Your task to perform on an android device: Open display settings Image 0: 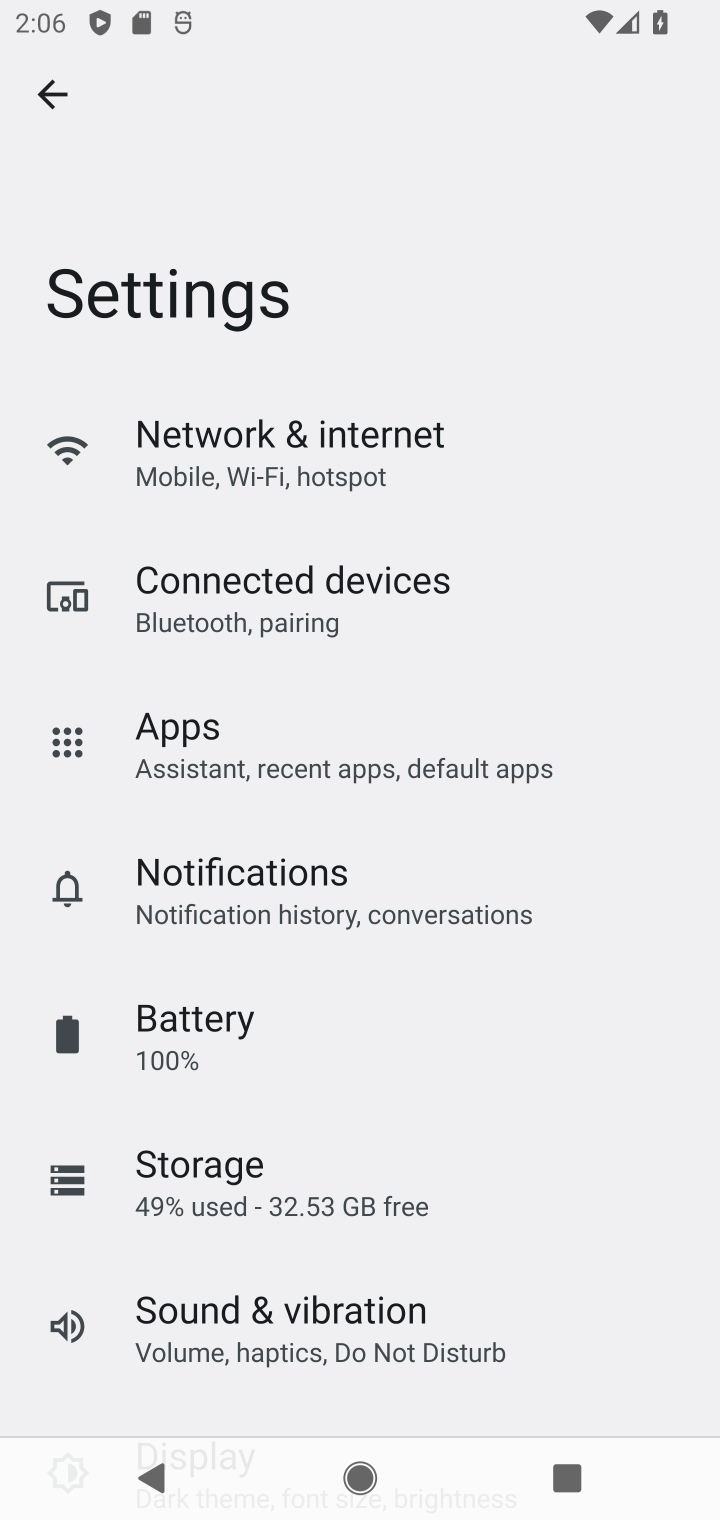
Step 0: press home button
Your task to perform on an android device: Open display settings Image 1: 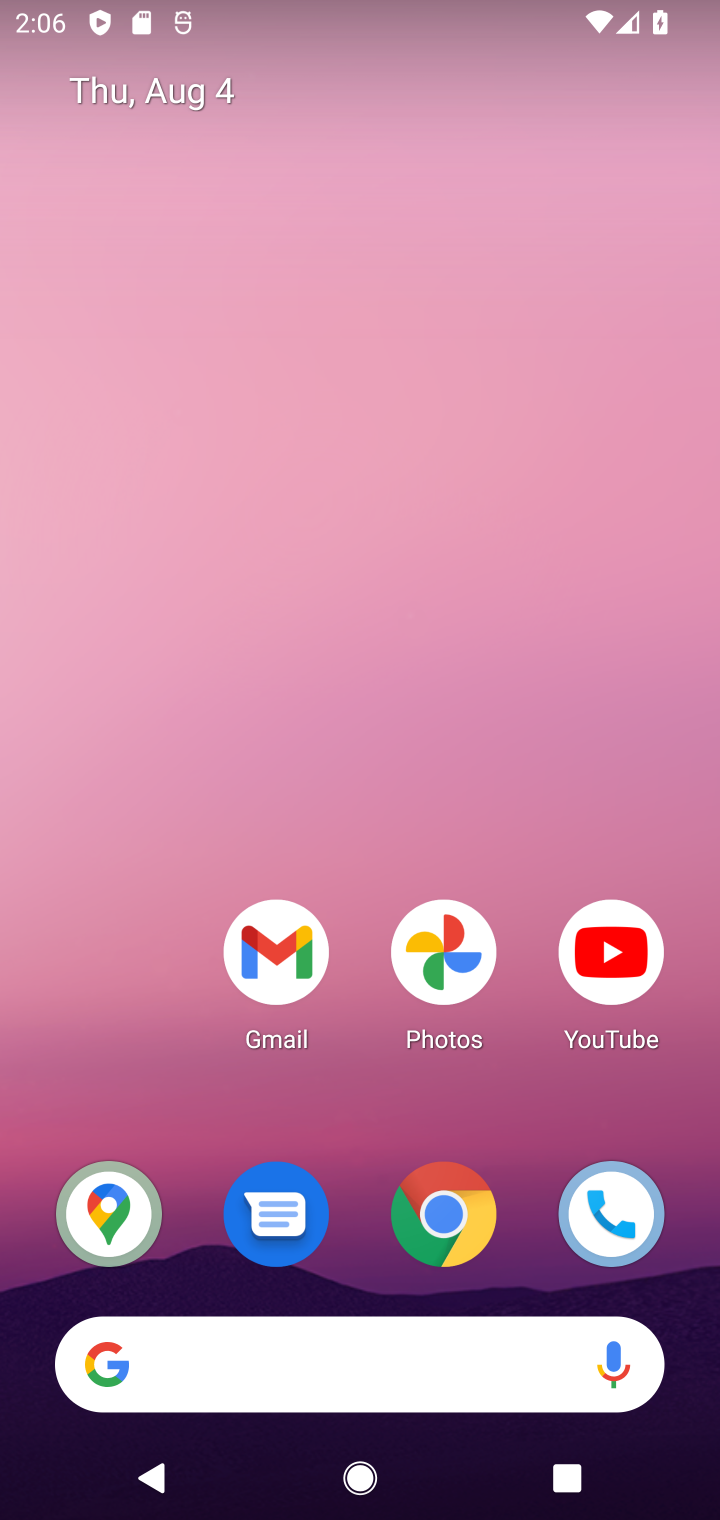
Step 1: drag from (513, 674) to (402, 0)
Your task to perform on an android device: Open display settings Image 2: 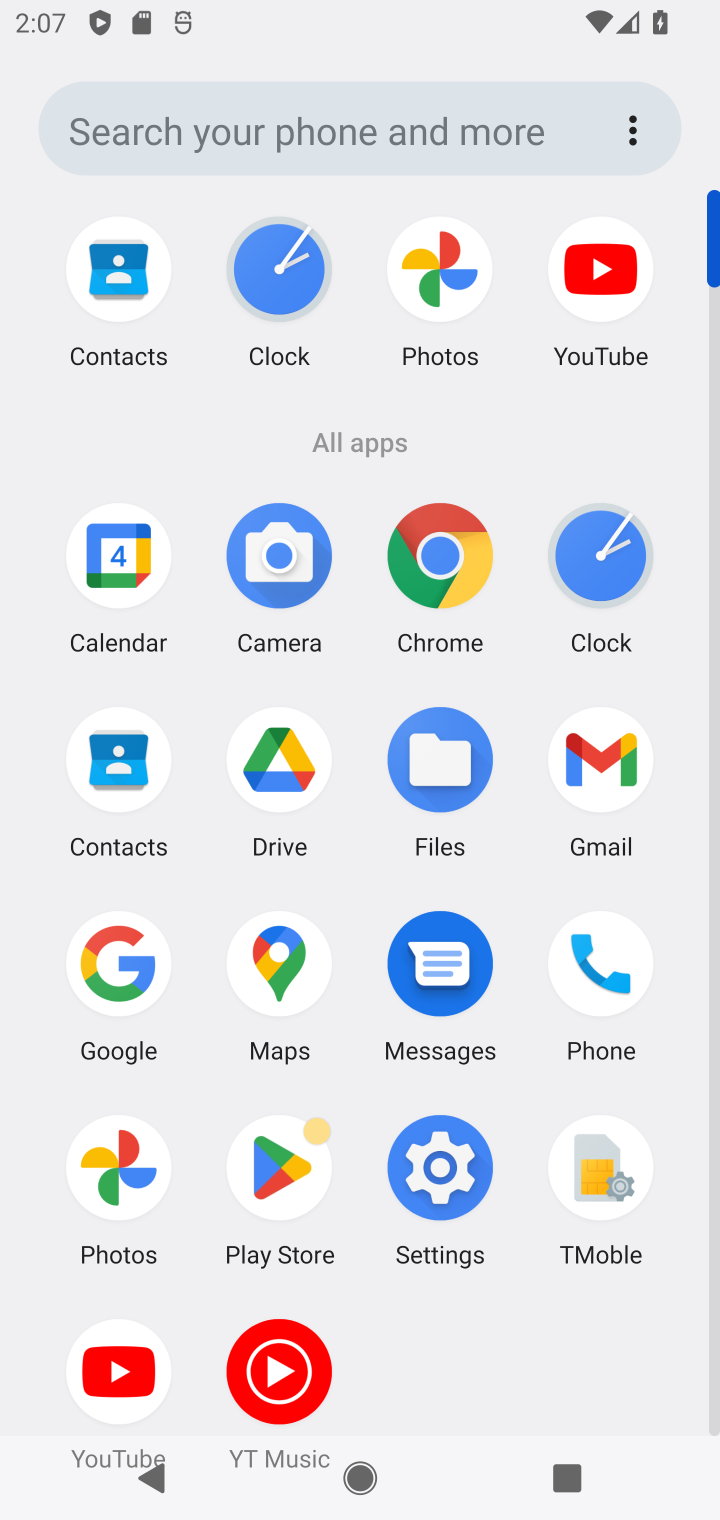
Step 2: click (456, 1161)
Your task to perform on an android device: Open display settings Image 3: 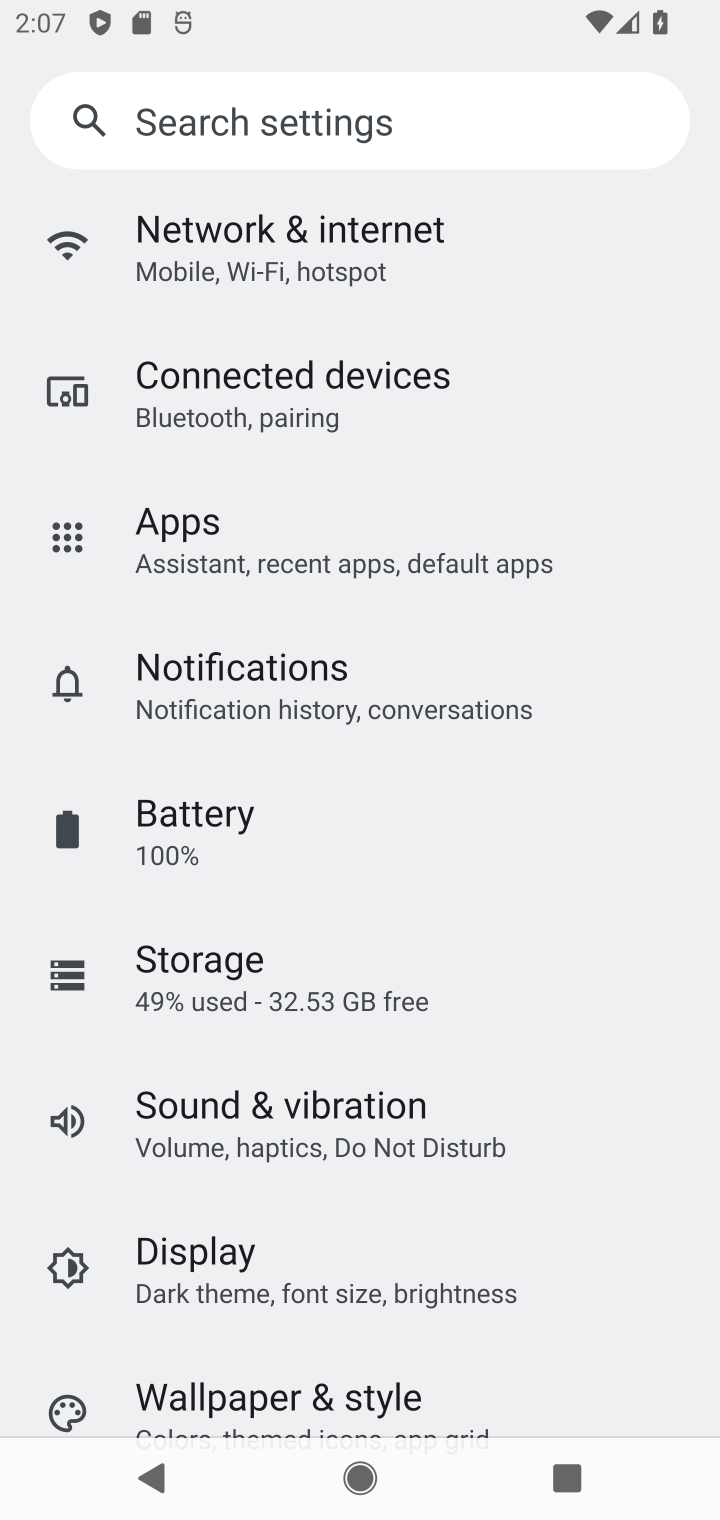
Step 3: drag from (360, 1357) to (298, 917)
Your task to perform on an android device: Open display settings Image 4: 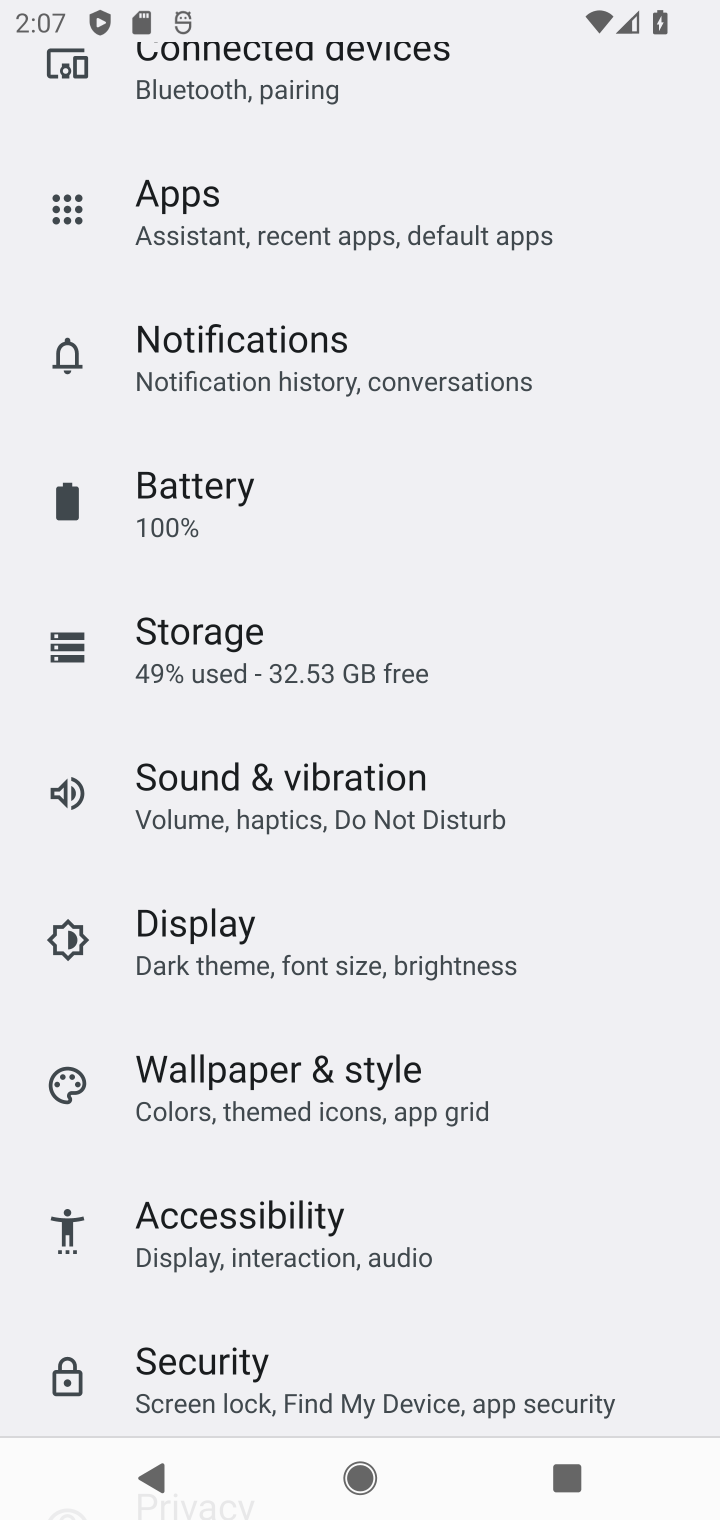
Step 4: click (270, 964)
Your task to perform on an android device: Open display settings Image 5: 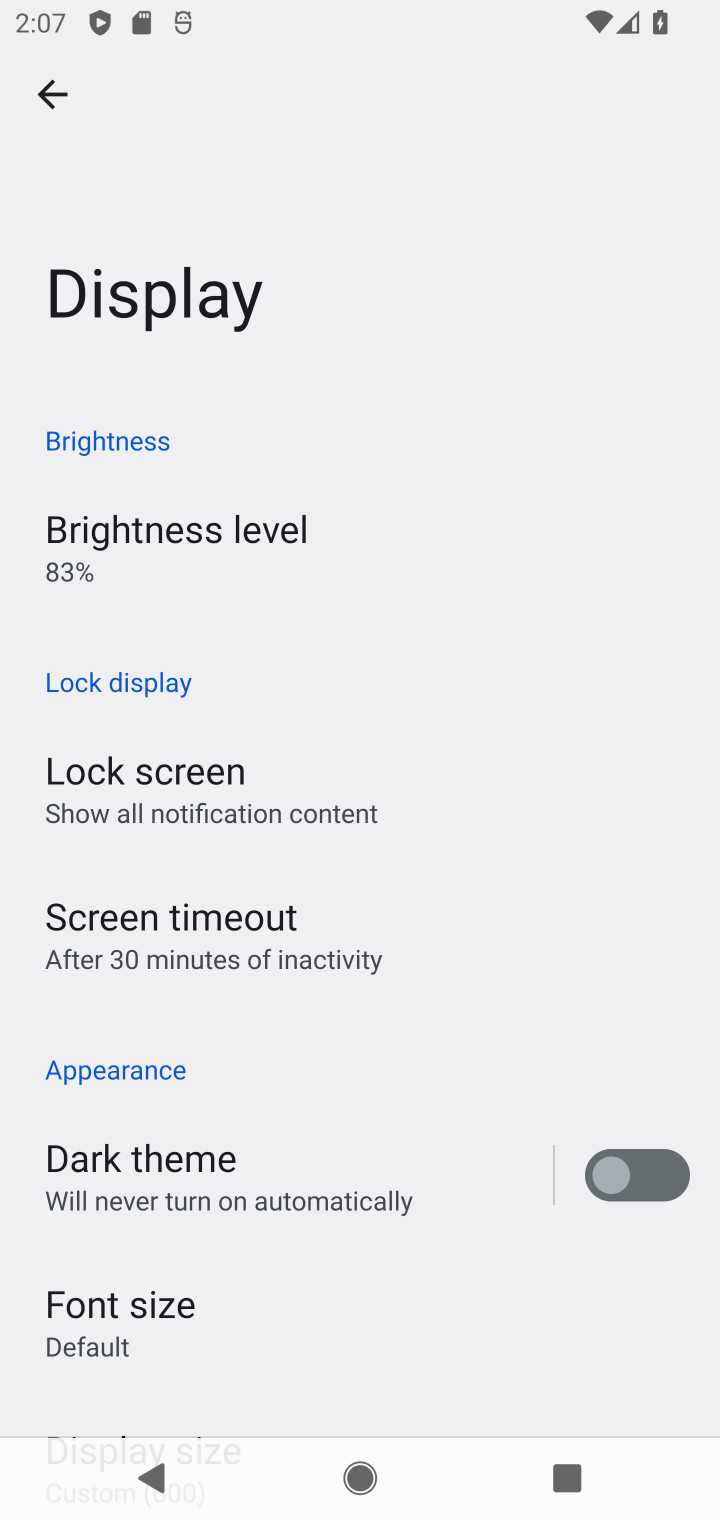
Step 5: task complete